Your task to perform on an android device: Open CNN.com Image 0: 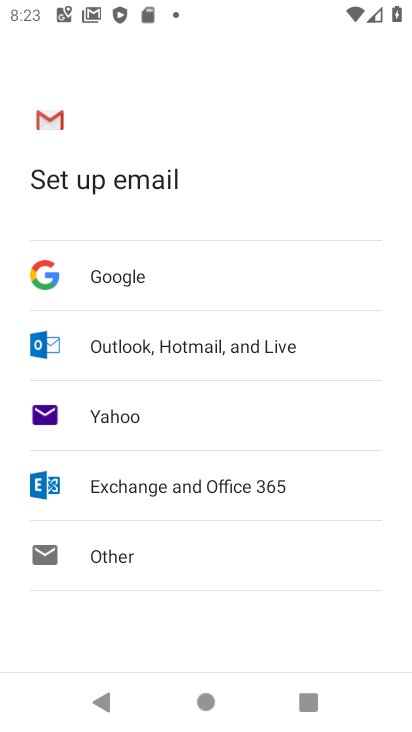
Step 0: press home button
Your task to perform on an android device: Open CNN.com Image 1: 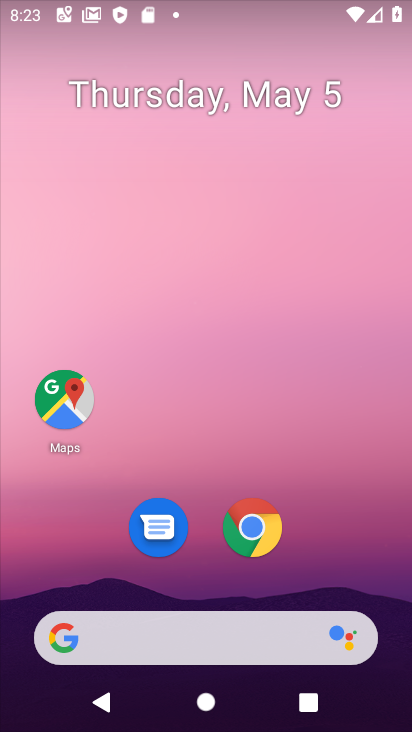
Step 1: click (178, 634)
Your task to perform on an android device: Open CNN.com Image 2: 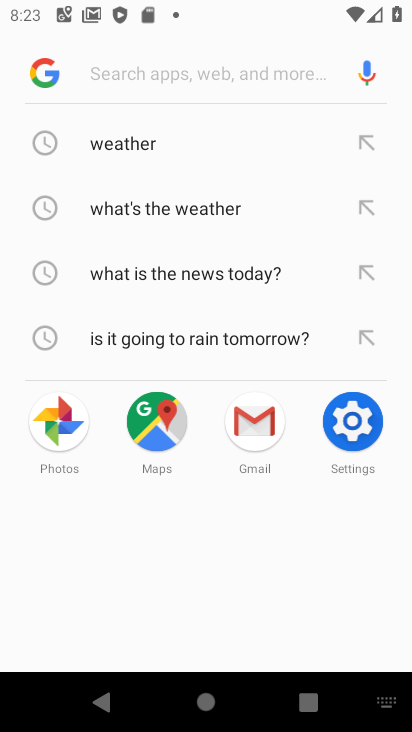
Step 2: type "cnn.com"
Your task to perform on an android device: Open CNN.com Image 3: 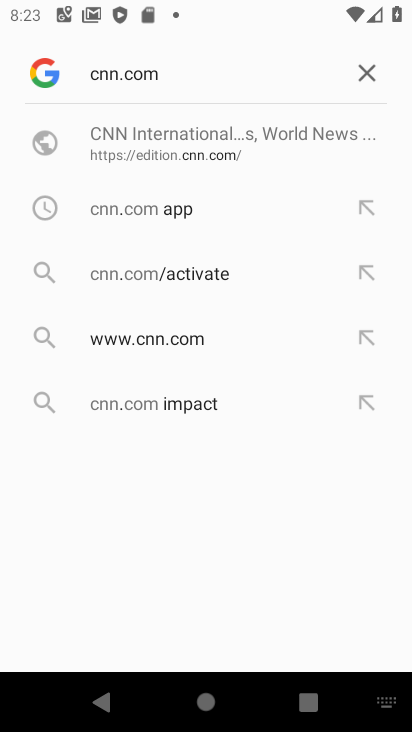
Step 3: click (203, 156)
Your task to perform on an android device: Open CNN.com Image 4: 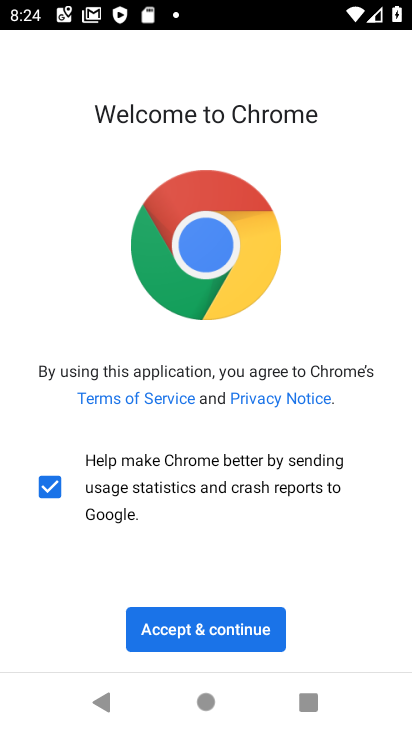
Step 4: click (252, 630)
Your task to perform on an android device: Open CNN.com Image 5: 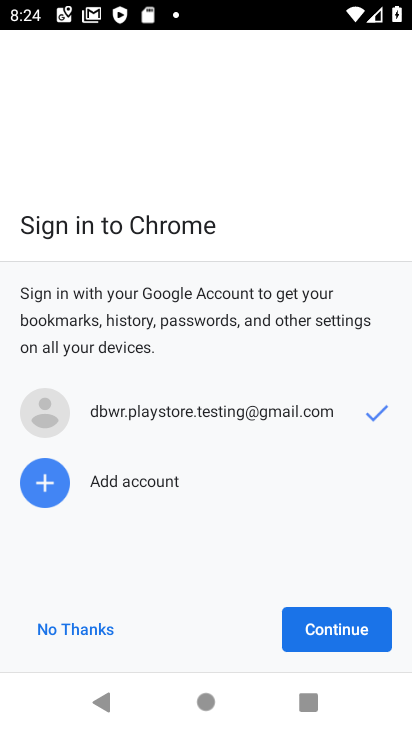
Step 5: click (340, 628)
Your task to perform on an android device: Open CNN.com Image 6: 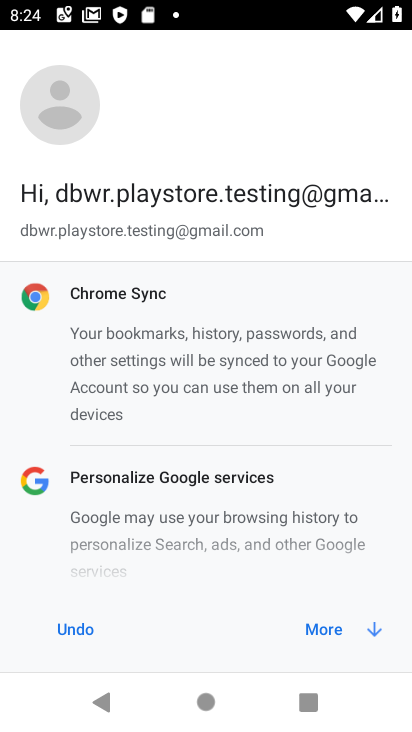
Step 6: click (336, 631)
Your task to perform on an android device: Open CNN.com Image 7: 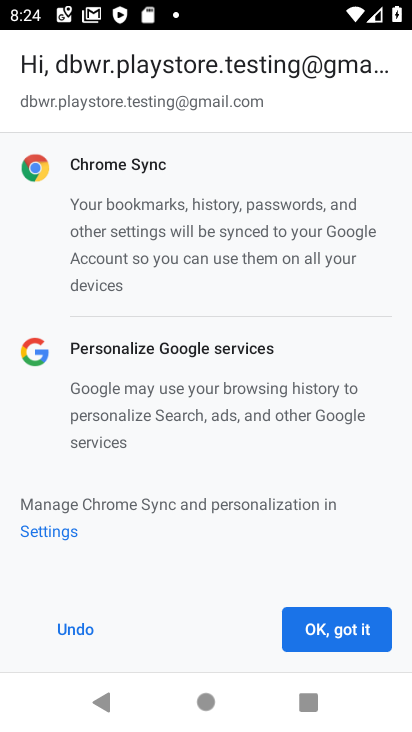
Step 7: click (350, 630)
Your task to perform on an android device: Open CNN.com Image 8: 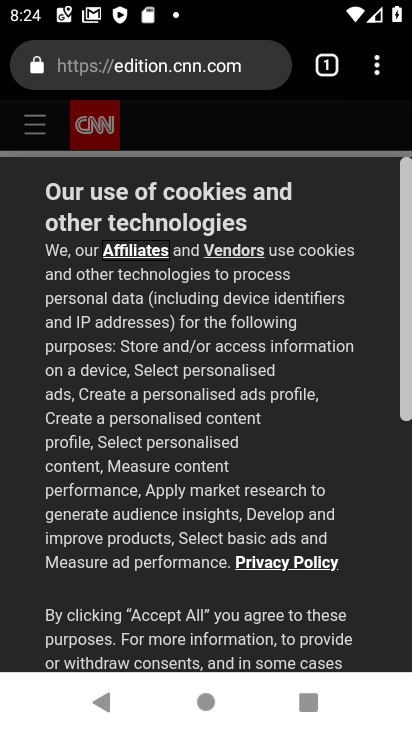
Step 8: drag from (407, 395) to (409, 714)
Your task to perform on an android device: Open CNN.com Image 9: 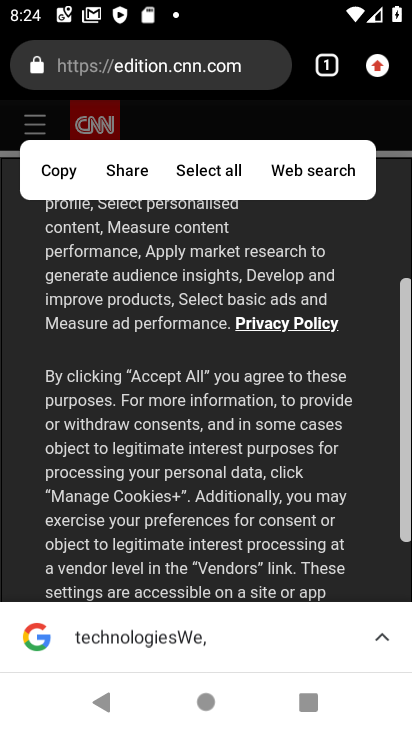
Step 9: click (381, 641)
Your task to perform on an android device: Open CNN.com Image 10: 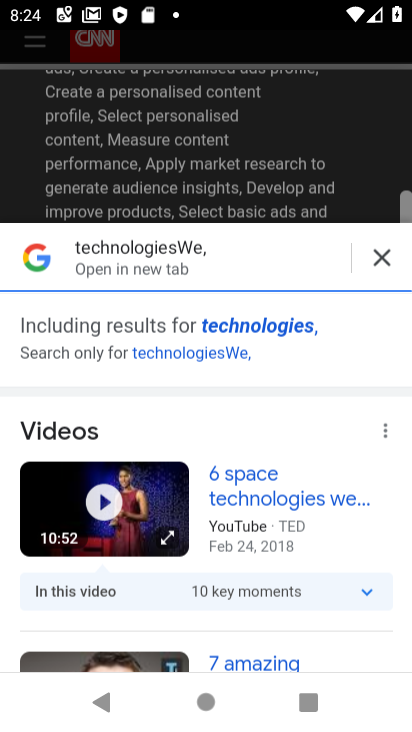
Step 10: click (380, 257)
Your task to perform on an android device: Open CNN.com Image 11: 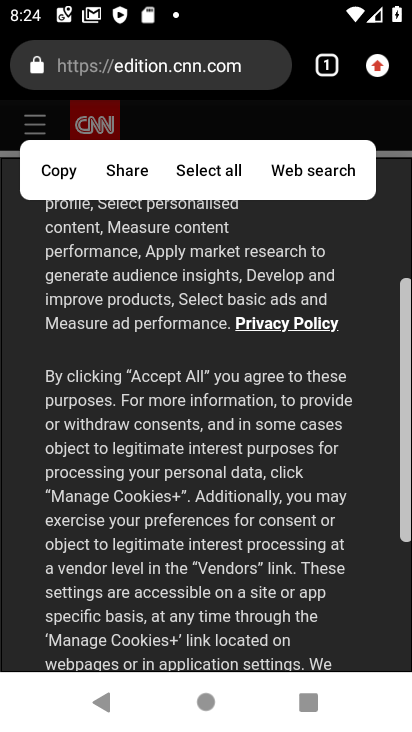
Step 11: task complete